Your task to perform on an android device: Open Google Chrome Image 0: 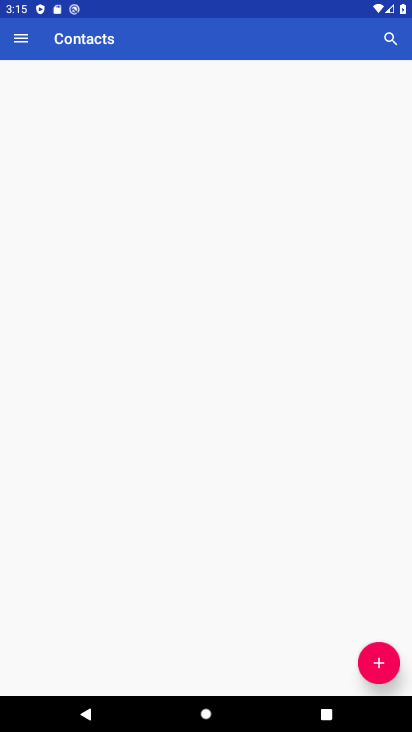
Step 0: press home button
Your task to perform on an android device: Open Google Chrome Image 1: 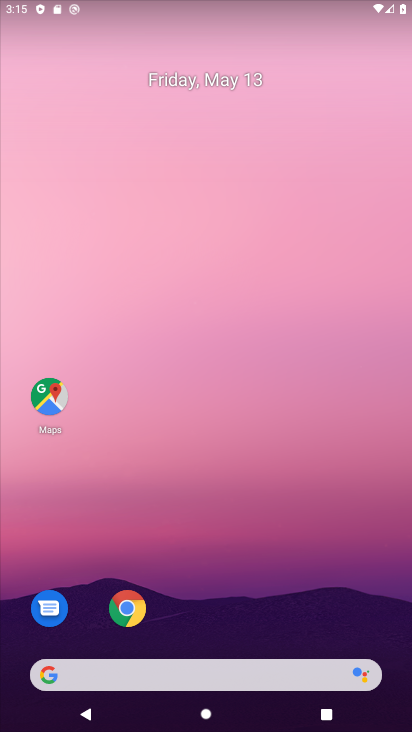
Step 1: drag from (216, 622) to (114, 725)
Your task to perform on an android device: Open Google Chrome Image 2: 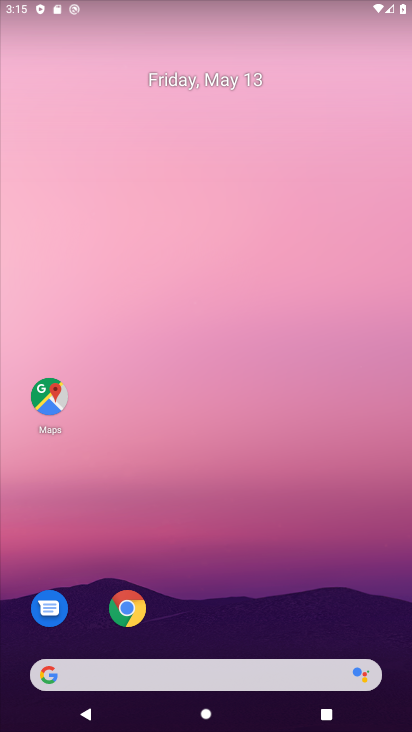
Step 2: click (123, 619)
Your task to perform on an android device: Open Google Chrome Image 3: 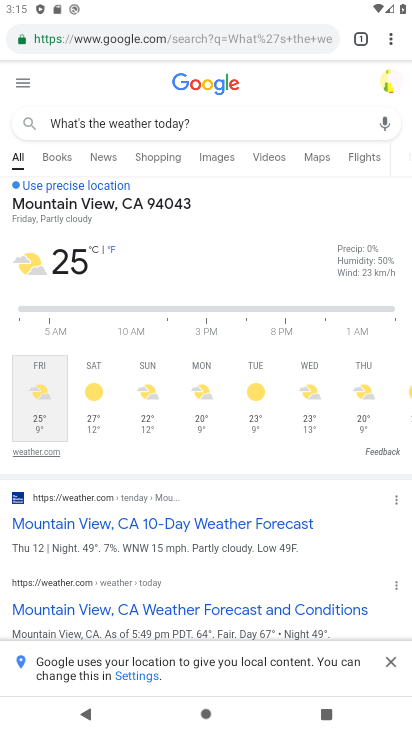
Step 3: task complete